Your task to perform on an android device: Open calendar and show me the first week of next month Image 0: 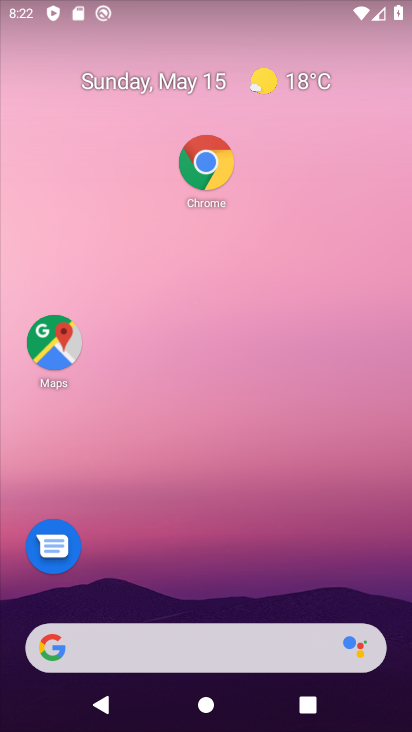
Step 0: drag from (269, 580) to (293, 188)
Your task to perform on an android device: Open calendar and show me the first week of next month Image 1: 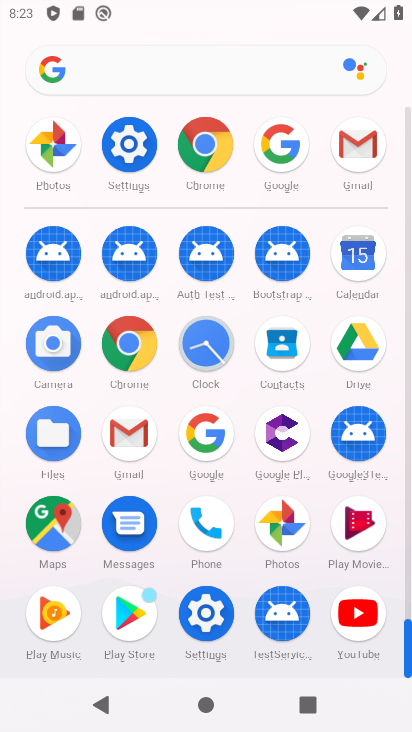
Step 1: click (360, 249)
Your task to perform on an android device: Open calendar and show me the first week of next month Image 2: 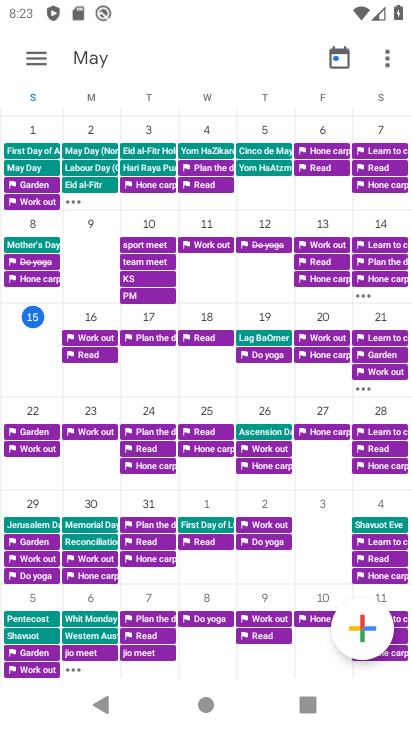
Step 2: task complete